Your task to perform on an android device: toggle improve location accuracy Image 0: 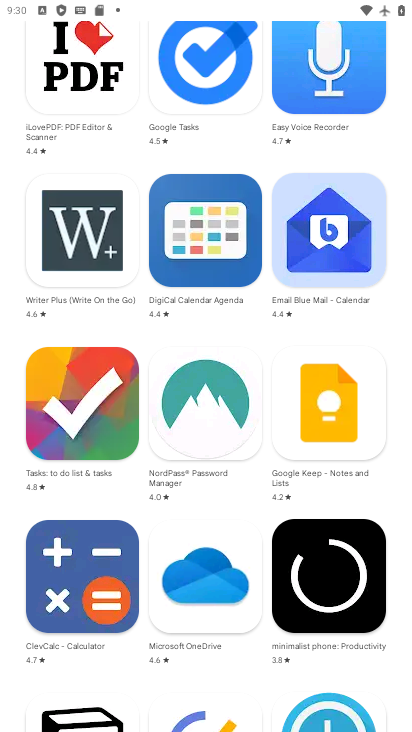
Step 0: press home button
Your task to perform on an android device: toggle improve location accuracy Image 1: 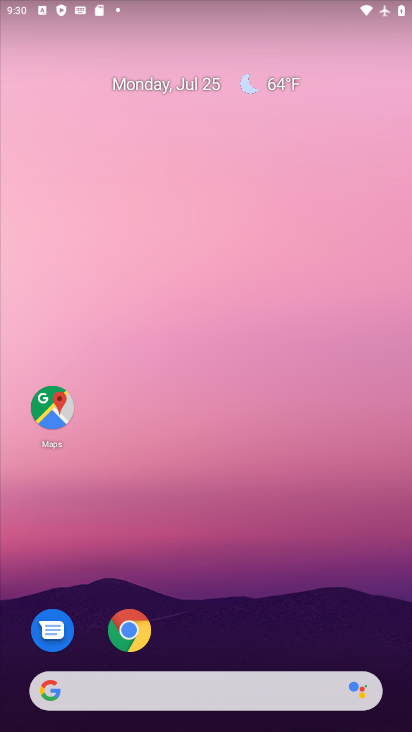
Step 1: drag from (386, 631) to (348, 191)
Your task to perform on an android device: toggle improve location accuracy Image 2: 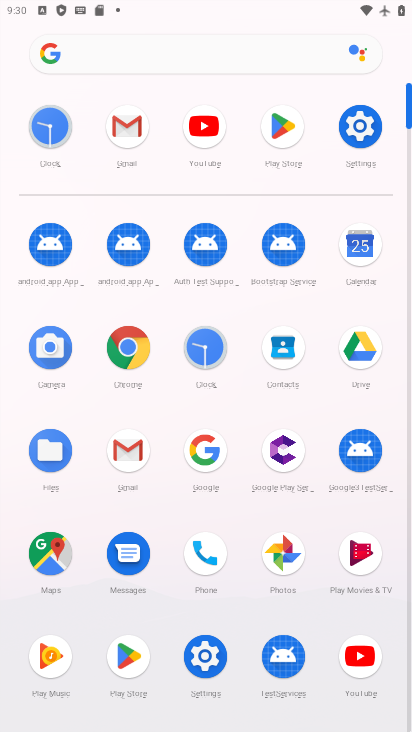
Step 2: click (199, 657)
Your task to perform on an android device: toggle improve location accuracy Image 3: 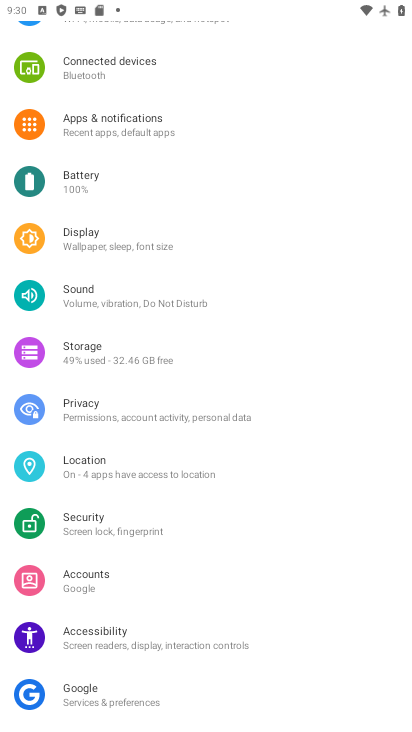
Step 3: click (95, 468)
Your task to perform on an android device: toggle improve location accuracy Image 4: 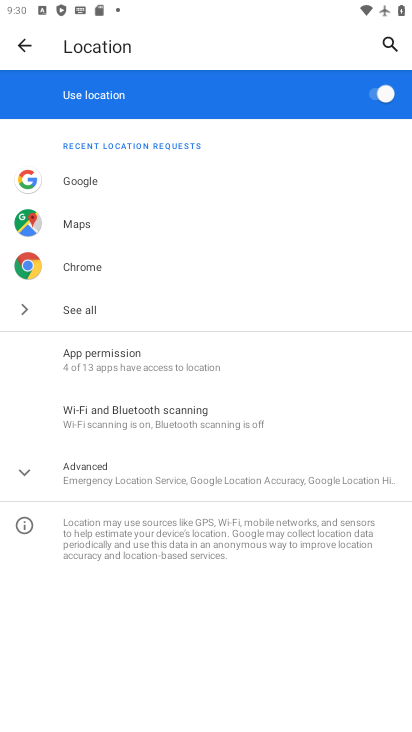
Step 4: click (28, 472)
Your task to perform on an android device: toggle improve location accuracy Image 5: 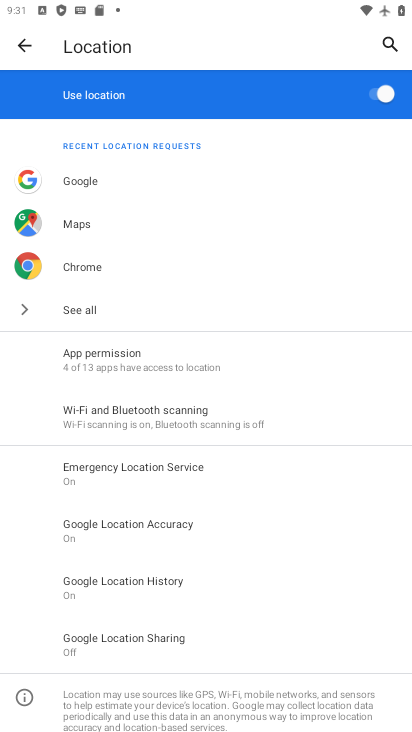
Step 5: click (136, 527)
Your task to perform on an android device: toggle improve location accuracy Image 6: 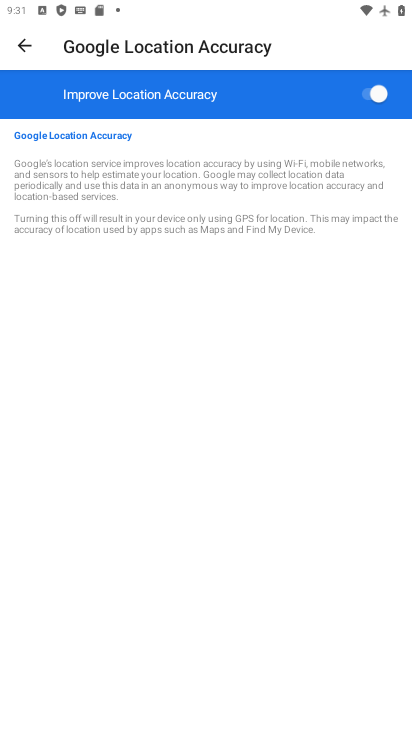
Step 6: click (371, 95)
Your task to perform on an android device: toggle improve location accuracy Image 7: 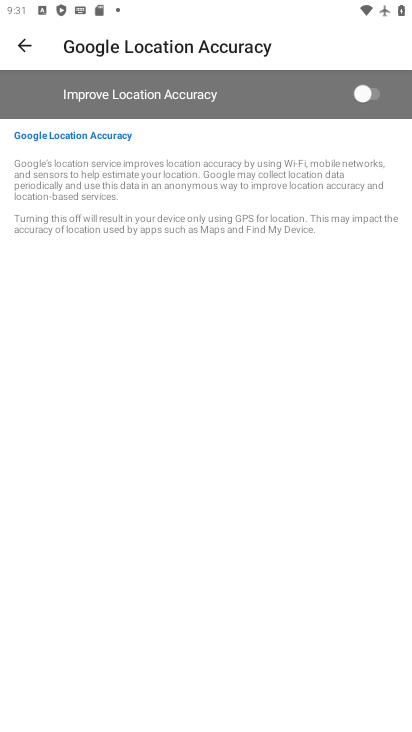
Step 7: task complete